Your task to perform on an android device: Open location settings Image 0: 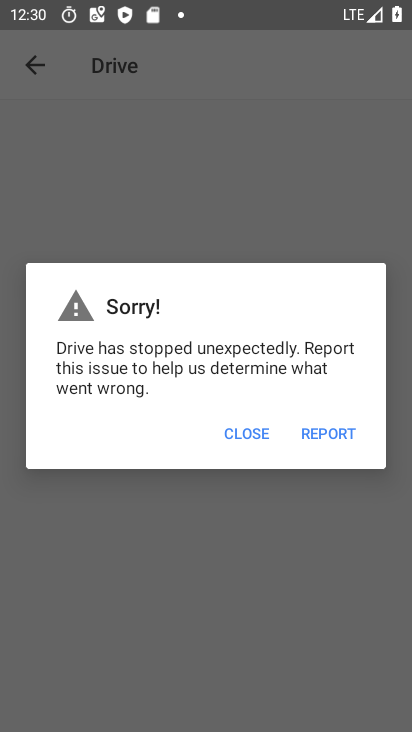
Step 0: press home button
Your task to perform on an android device: Open location settings Image 1: 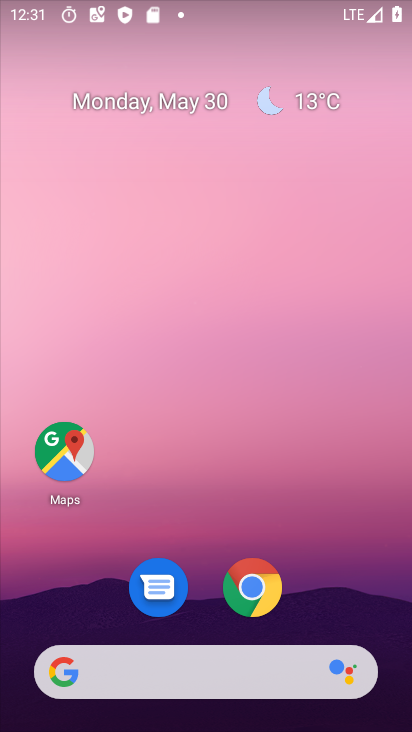
Step 1: drag from (327, 446) to (307, 102)
Your task to perform on an android device: Open location settings Image 2: 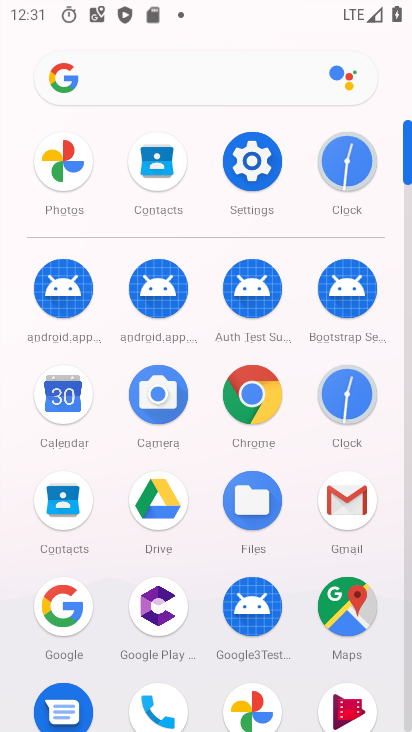
Step 2: click (264, 157)
Your task to perform on an android device: Open location settings Image 3: 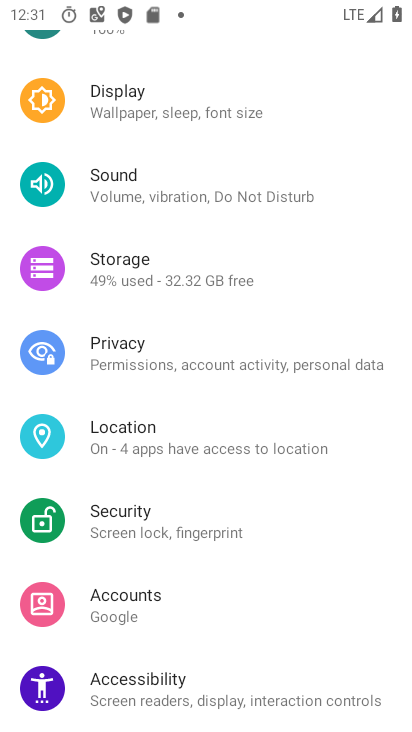
Step 3: drag from (250, 496) to (272, 314)
Your task to perform on an android device: Open location settings Image 4: 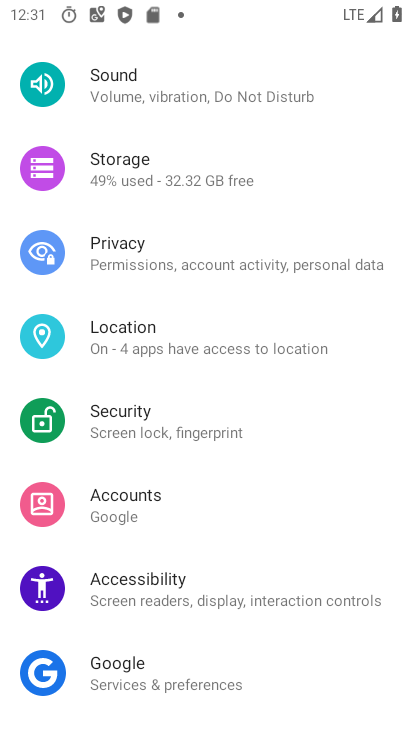
Step 4: click (178, 336)
Your task to perform on an android device: Open location settings Image 5: 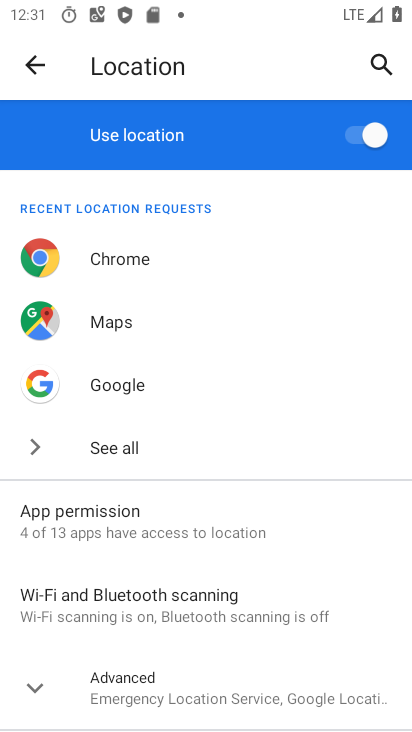
Step 5: task complete